Your task to perform on an android device: change notifications settings Image 0: 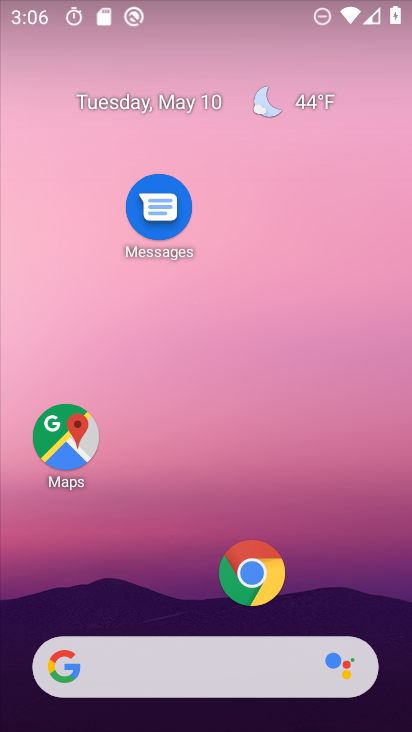
Step 0: drag from (184, 617) to (246, 188)
Your task to perform on an android device: change notifications settings Image 1: 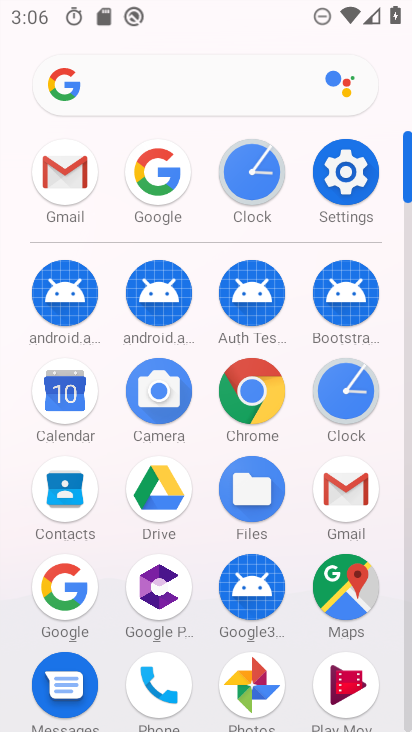
Step 1: click (373, 183)
Your task to perform on an android device: change notifications settings Image 2: 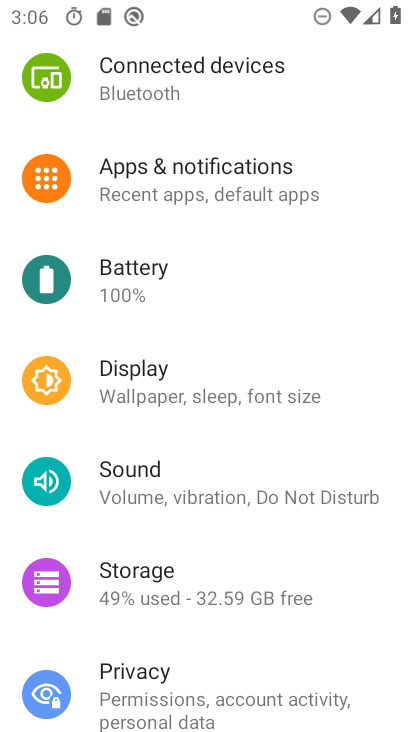
Step 2: click (231, 200)
Your task to perform on an android device: change notifications settings Image 3: 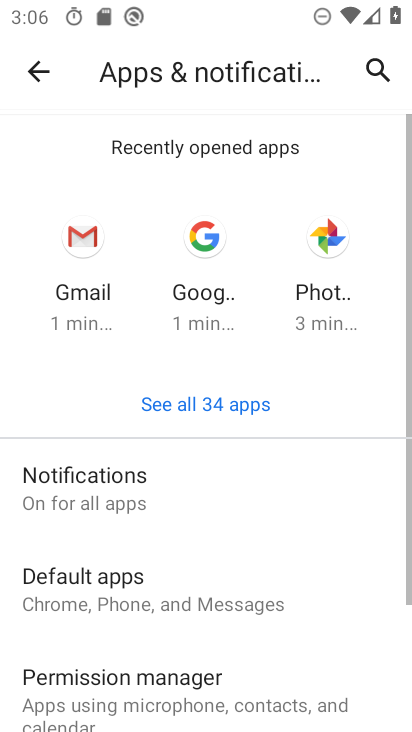
Step 3: click (149, 480)
Your task to perform on an android device: change notifications settings Image 4: 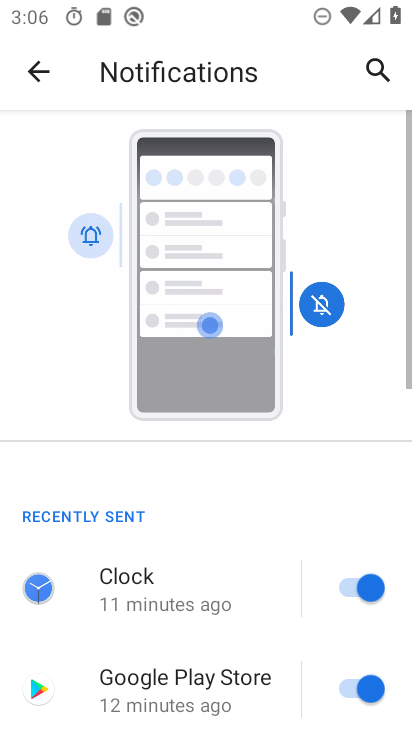
Step 4: drag from (183, 591) to (277, 257)
Your task to perform on an android device: change notifications settings Image 5: 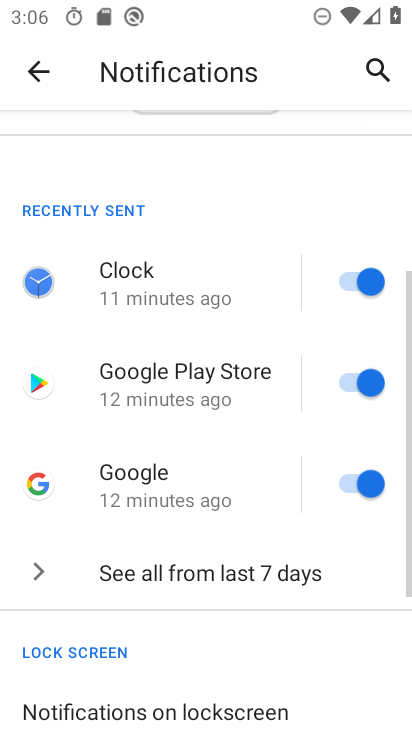
Step 5: drag from (257, 599) to (276, 210)
Your task to perform on an android device: change notifications settings Image 6: 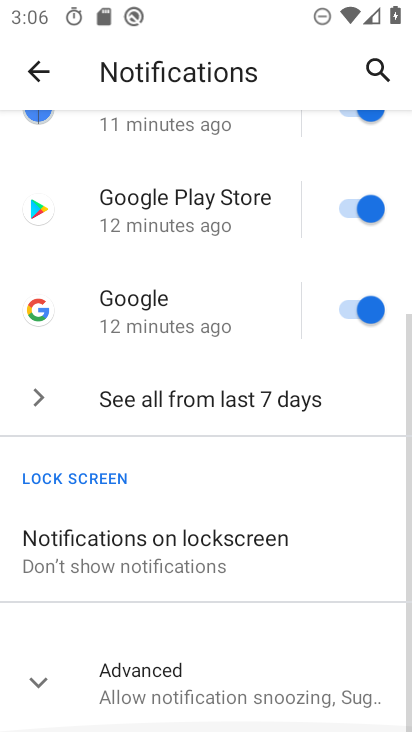
Step 6: drag from (230, 583) to (264, 300)
Your task to perform on an android device: change notifications settings Image 7: 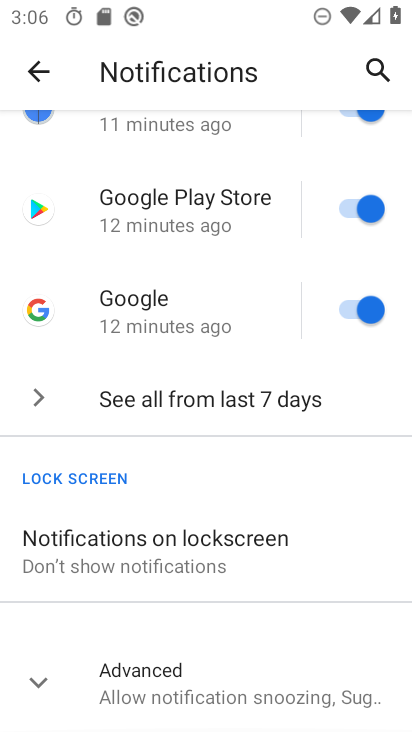
Step 7: click (186, 694)
Your task to perform on an android device: change notifications settings Image 8: 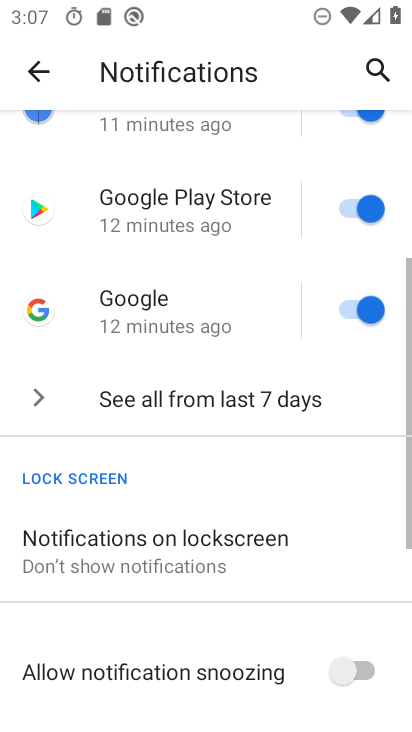
Step 8: task complete